Your task to perform on an android device: See recent photos Image 0: 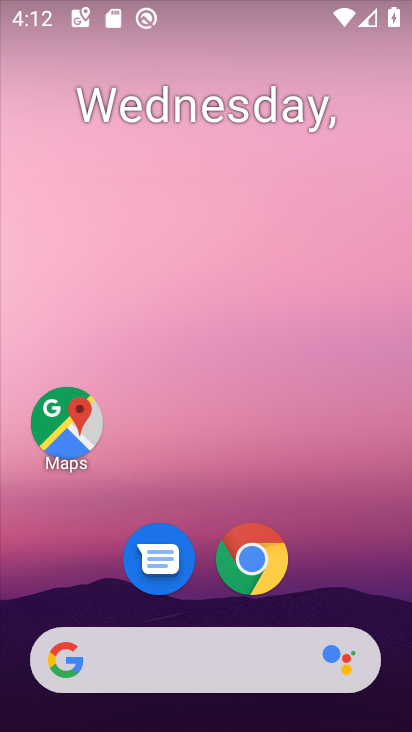
Step 0: drag from (343, 573) to (225, 60)
Your task to perform on an android device: See recent photos Image 1: 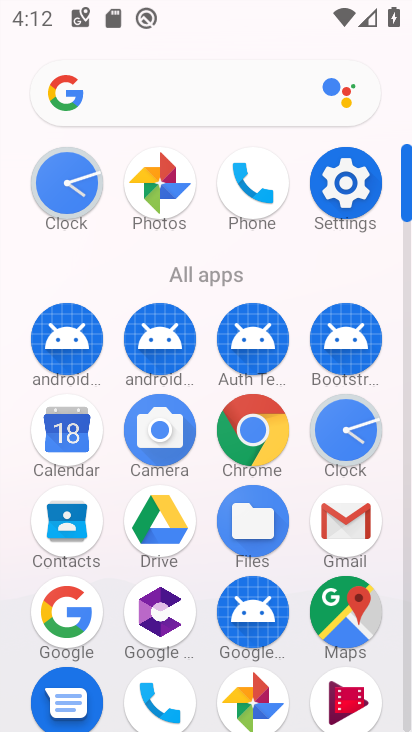
Step 1: click (256, 685)
Your task to perform on an android device: See recent photos Image 2: 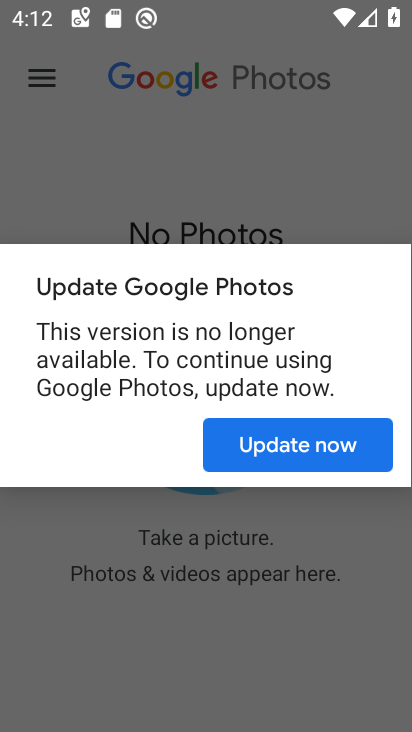
Step 2: click (282, 446)
Your task to perform on an android device: See recent photos Image 3: 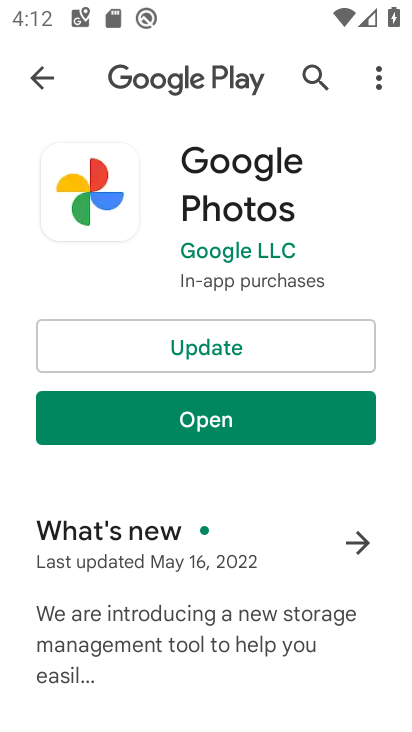
Step 3: click (223, 353)
Your task to perform on an android device: See recent photos Image 4: 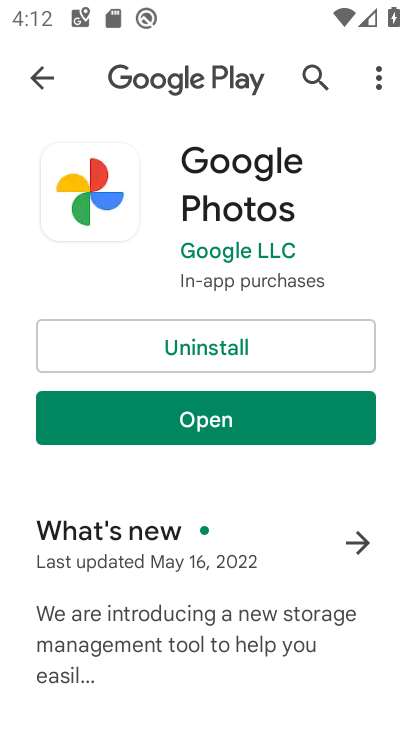
Step 4: click (229, 421)
Your task to perform on an android device: See recent photos Image 5: 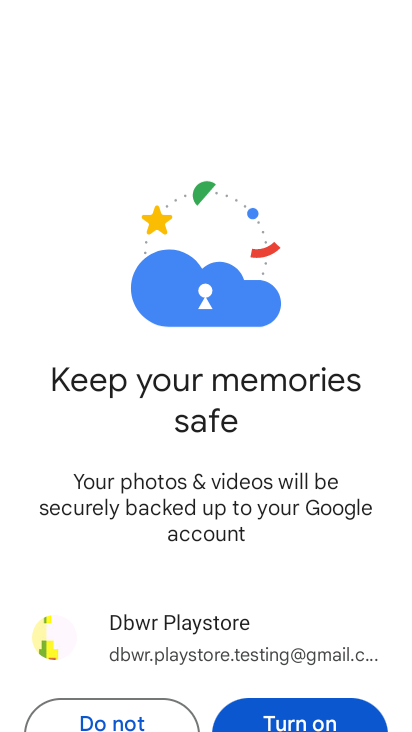
Step 5: click (165, 707)
Your task to perform on an android device: See recent photos Image 6: 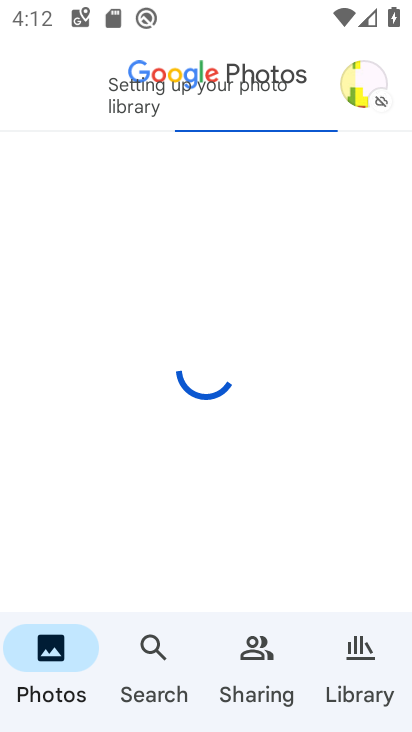
Step 6: click (155, 651)
Your task to perform on an android device: See recent photos Image 7: 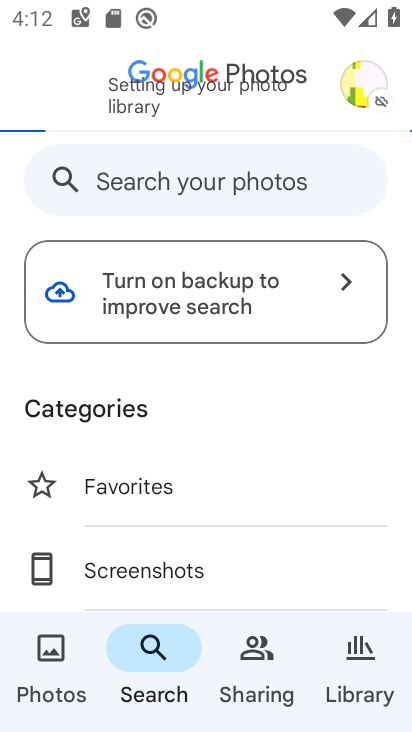
Step 7: click (196, 183)
Your task to perform on an android device: See recent photos Image 8: 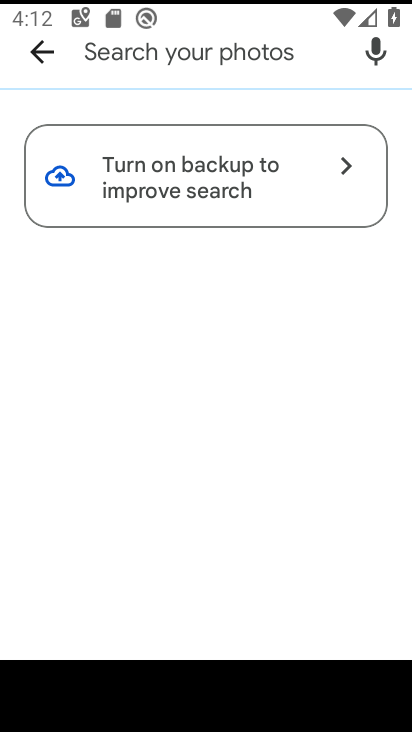
Step 8: type "recent"
Your task to perform on an android device: See recent photos Image 9: 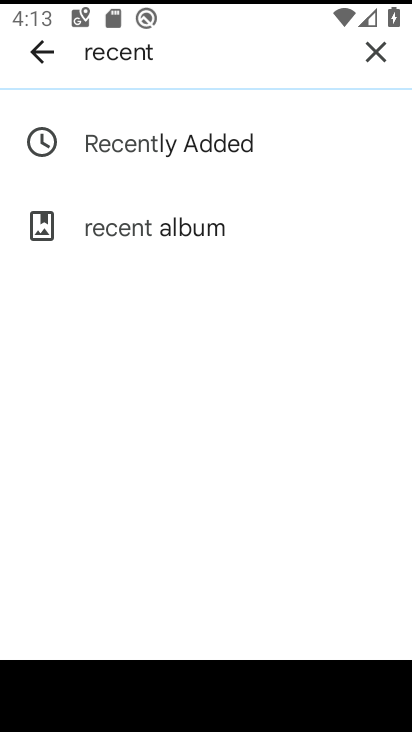
Step 9: click (193, 146)
Your task to perform on an android device: See recent photos Image 10: 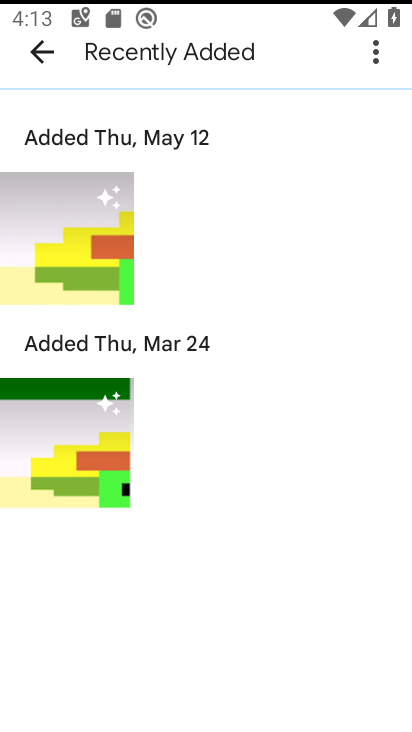
Step 10: task complete